Your task to perform on an android device: check out phone information Image 0: 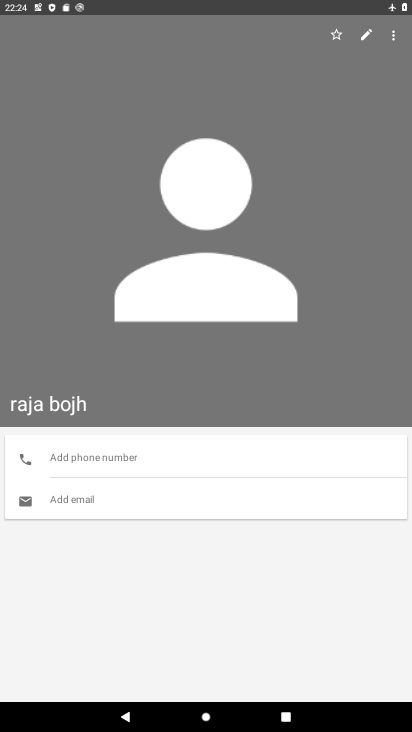
Step 0: press home button
Your task to perform on an android device: check out phone information Image 1: 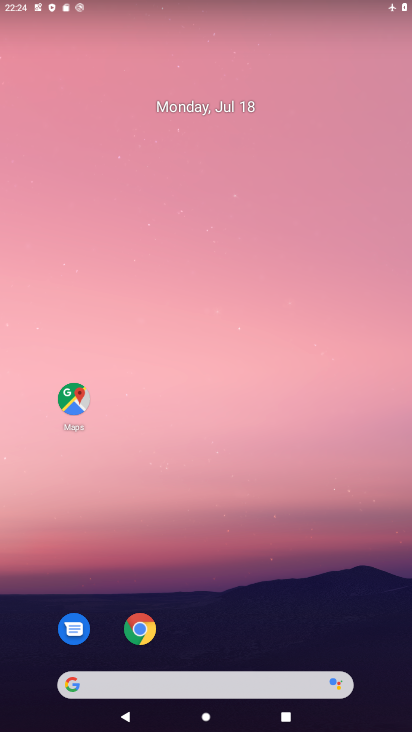
Step 1: drag from (259, 343) to (216, 70)
Your task to perform on an android device: check out phone information Image 2: 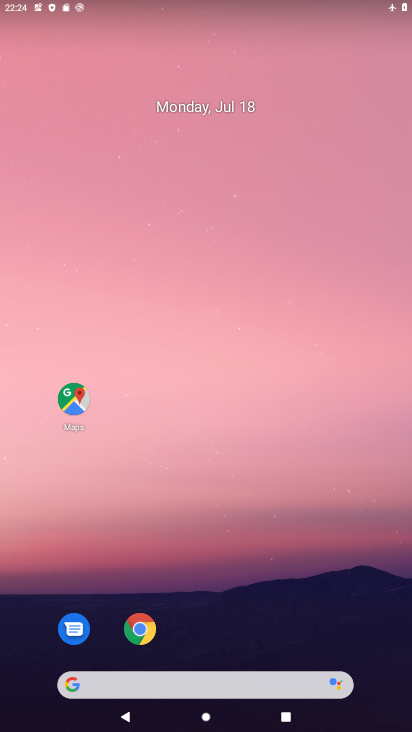
Step 2: drag from (298, 633) to (164, 62)
Your task to perform on an android device: check out phone information Image 3: 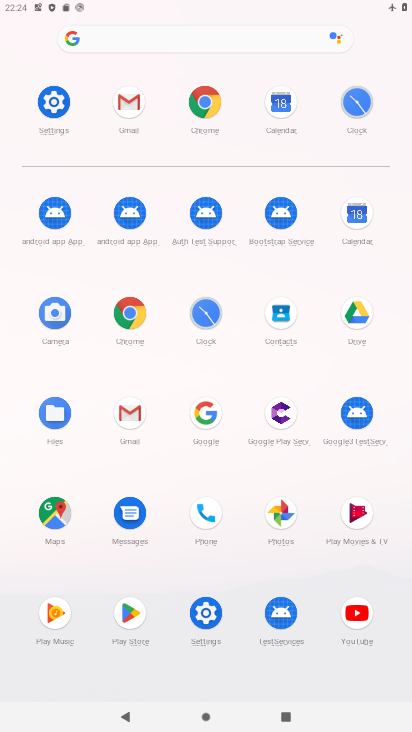
Step 3: click (202, 517)
Your task to perform on an android device: check out phone information Image 4: 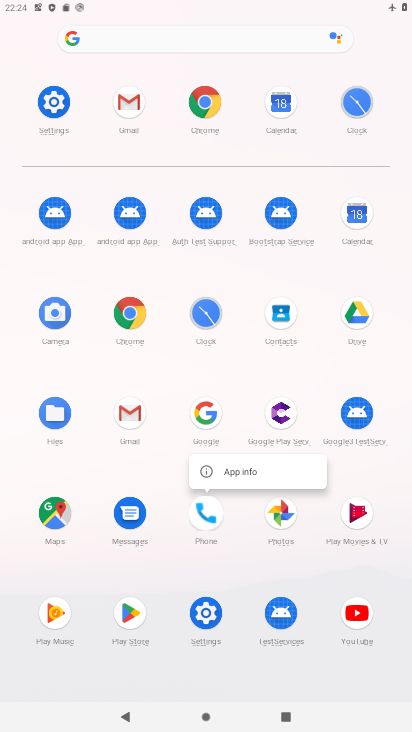
Step 4: click (244, 470)
Your task to perform on an android device: check out phone information Image 5: 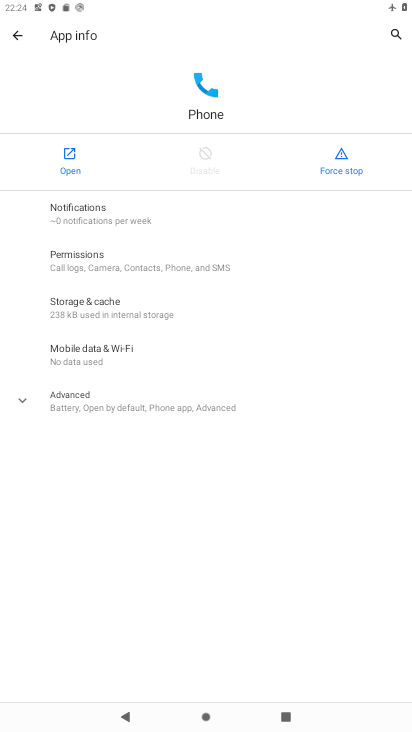
Step 5: click (127, 401)
Your task to perform on an android device: check out phone information Image 6: 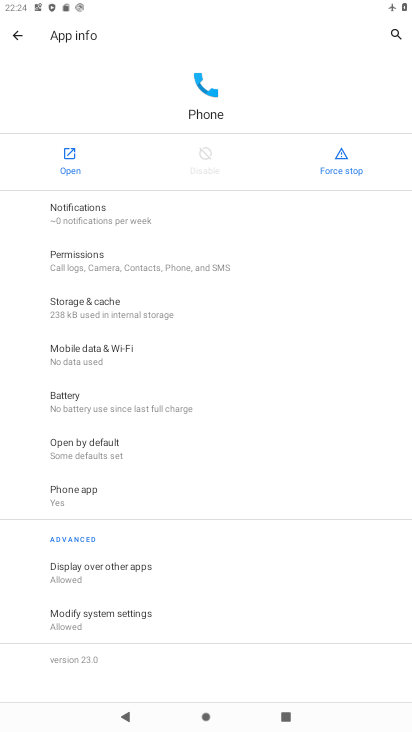
Step 6: task complete